Your task to perform on an android device: Open the calendar app, open the side menu, and click the "Day" option Image 0: 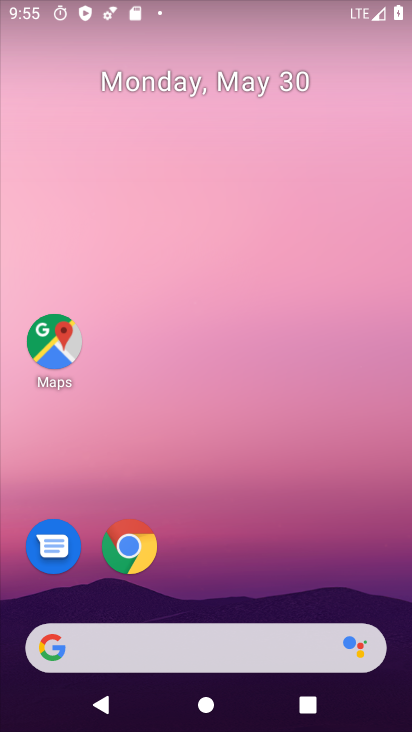
Step 0: drag from (238, 627) to (335, 17)
Your task to perform on an android device: Open the calendar app, open the side menu, and click the "Day" option Image 1: 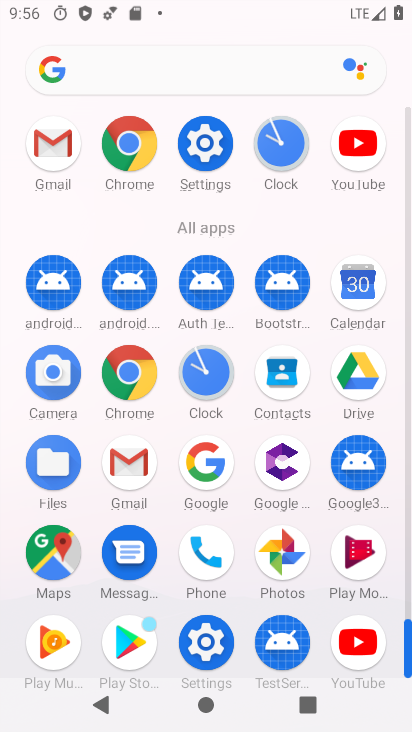
Step 1: click (357, 283)
Your task to perform on an android device: Open the calendar app, open the side menu, and click the "Day" option Image 2: 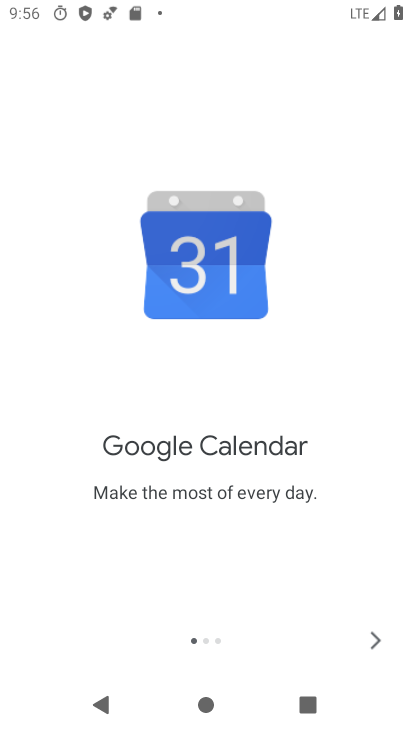
Step 2: click (376, 638)
Your task to perform on an android device: Open the calendar app, open the side menu, and click the "Day" option Image 3: 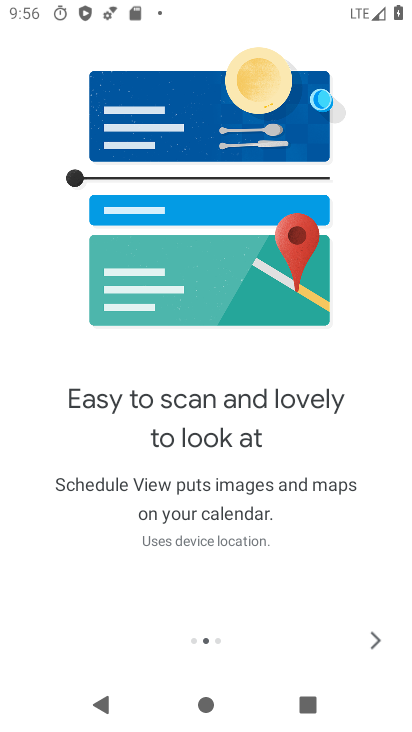
Step 3: click (377, 637)
Your task to perform on an android device: Open the calendar app, open the side menu, and click the "Day" option Image 4: 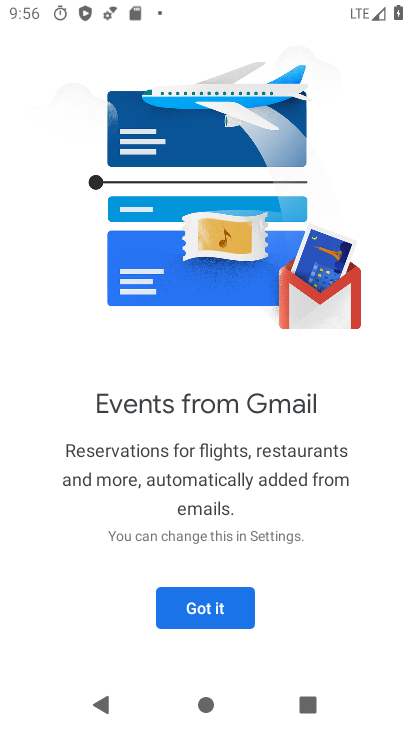
Step 4: click (174, 599)
Your task to perform on an android device: Open the calendar app, open the side menu, and click the "Day" option Image 5: 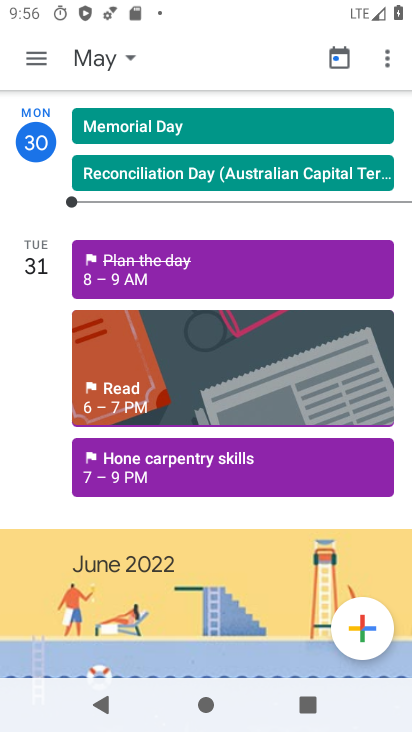
Step 5: click (48, 59)
Your task to perform on an android device: Open the calendar app, open the side menu, and click the "Day" option Image 6: 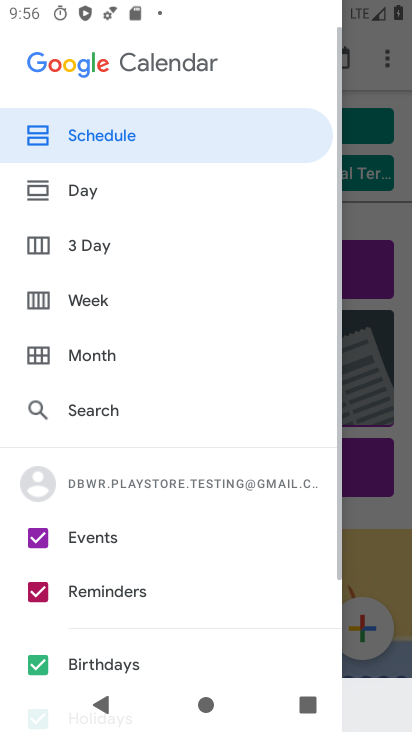
Step 6: click (118, 199)
Your task to perform on an android device: Open the calendar app, open the side menu, and click the "Day" option Image 7: 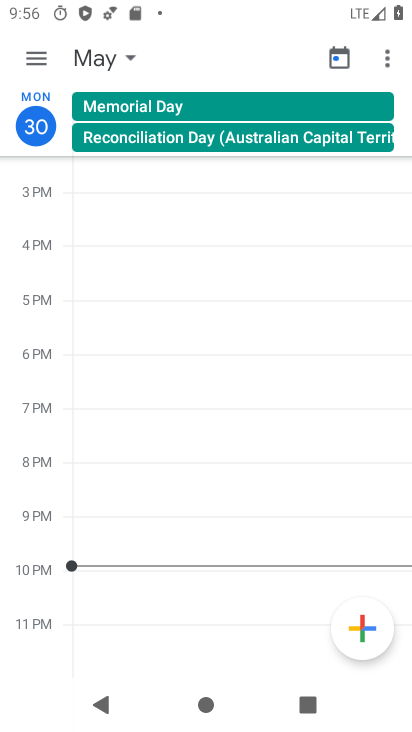
Step 7: task complete